Your task to perform on an android device: Open display settings Image 0: 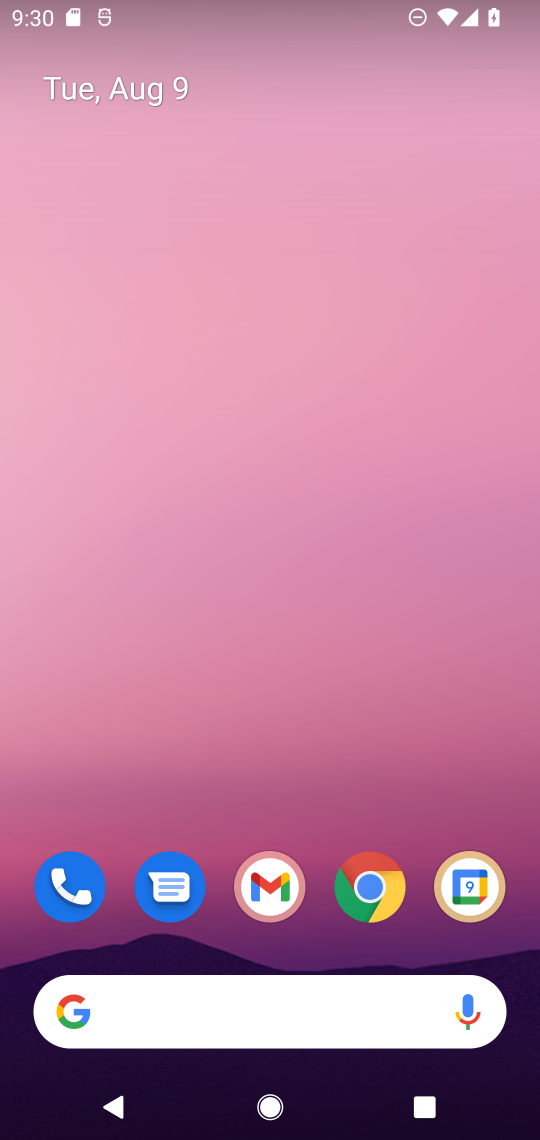
Step 0: drag from (347, 655) to (347, 70)
Your task to perform on an android device: Open display settings Image 1: 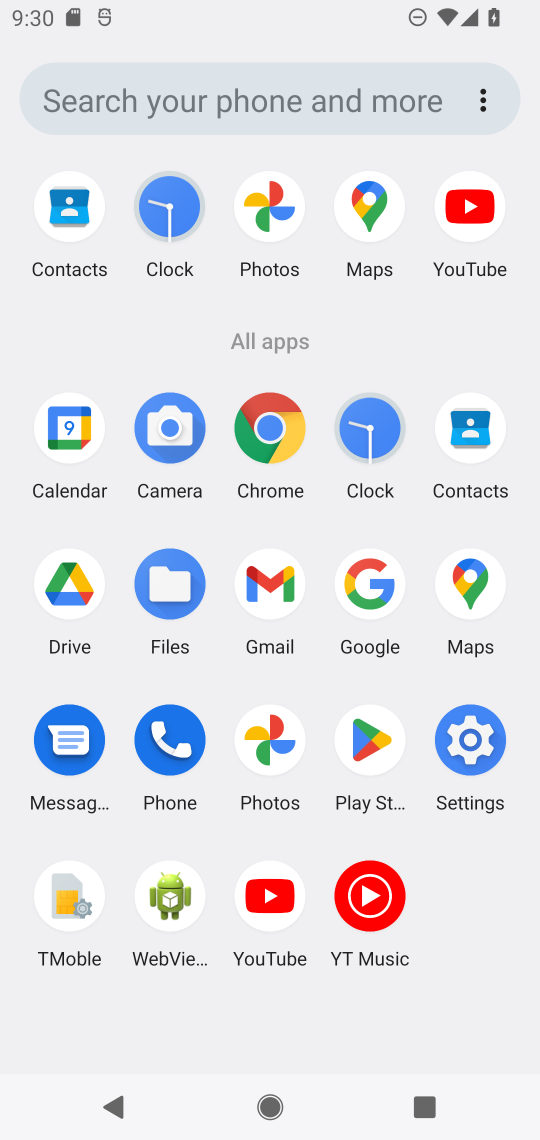
Step 1: click (452, 724)
Your task to perform on an android device: Open display settings Image 2: 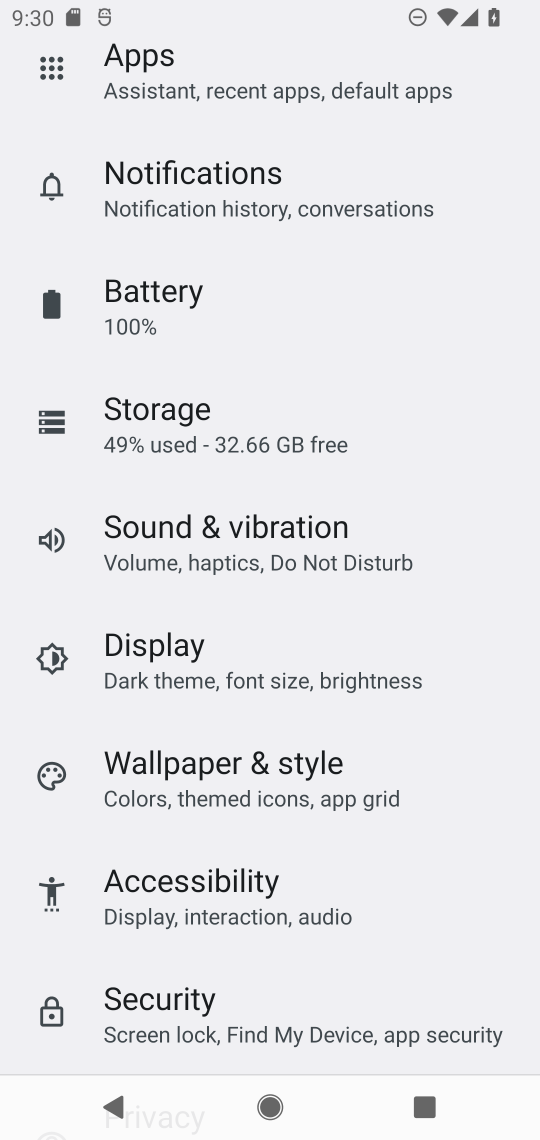
Step 2: drag from (267, 498) to (273, 883)
Your task to perform on an android device: Open display settings Image 3: 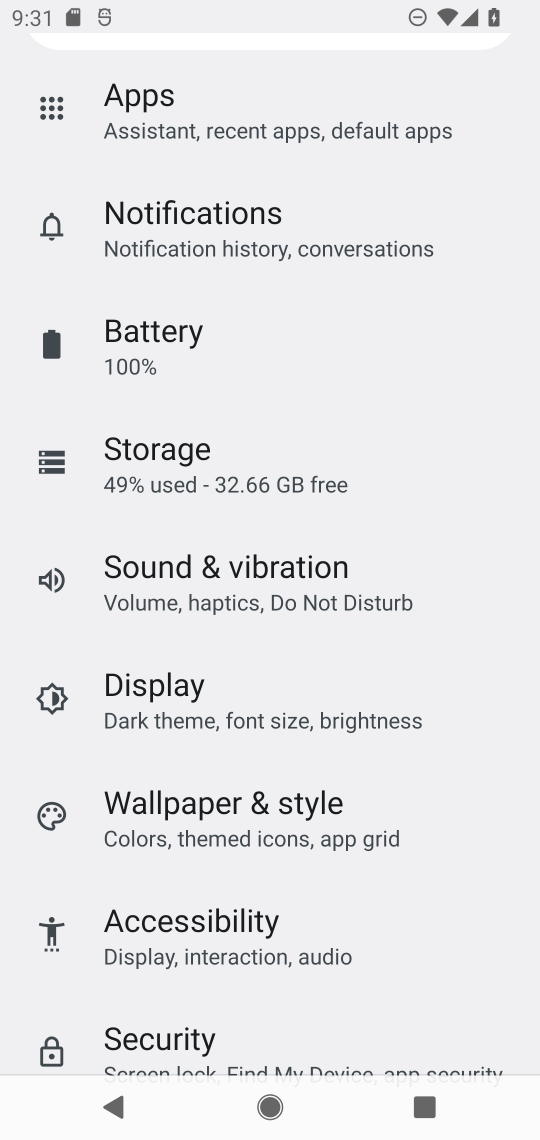
Step 3: drag from (212, 415) to (267, 938)
Your task to perform on an android device: Open display settings Image 4: 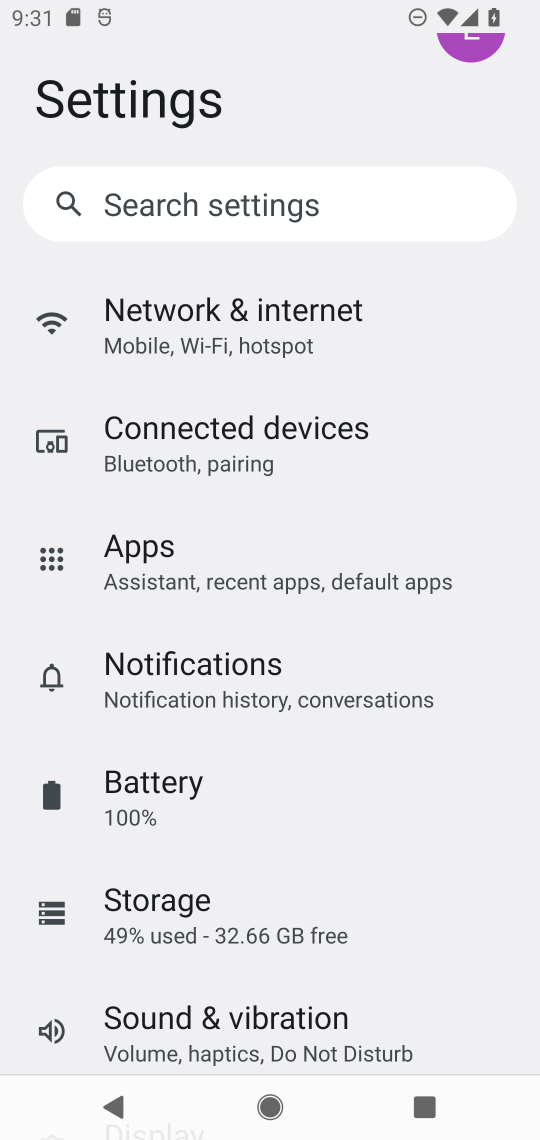
Step 4: drag from (243, 949) to (238, 361)
Your task to perform on an android device: Open display settings Image 5: 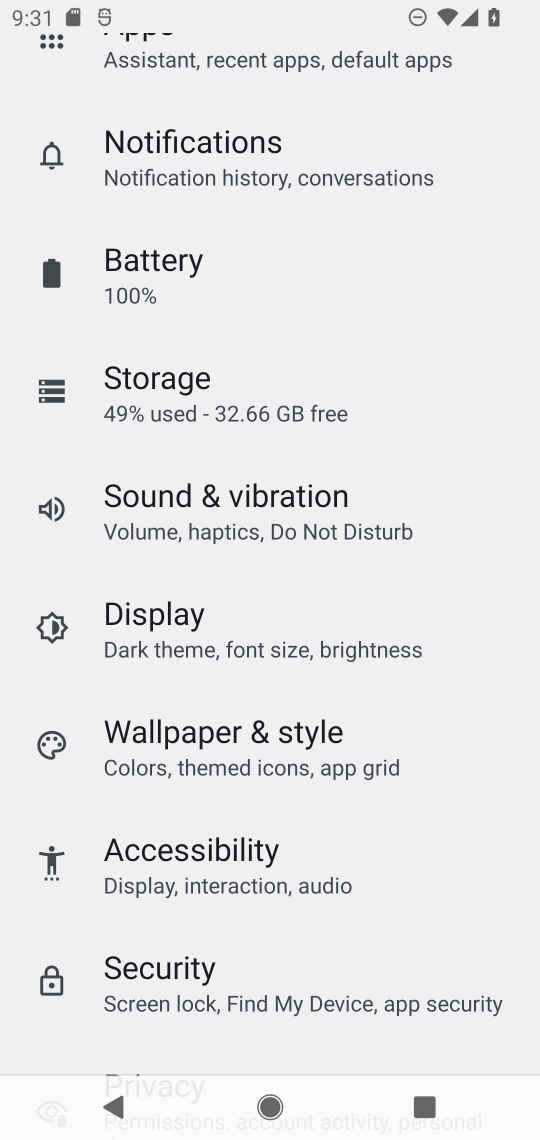
Step 5: click (172, 628)
Your task to perform on an android device: Open display settings Image 6: 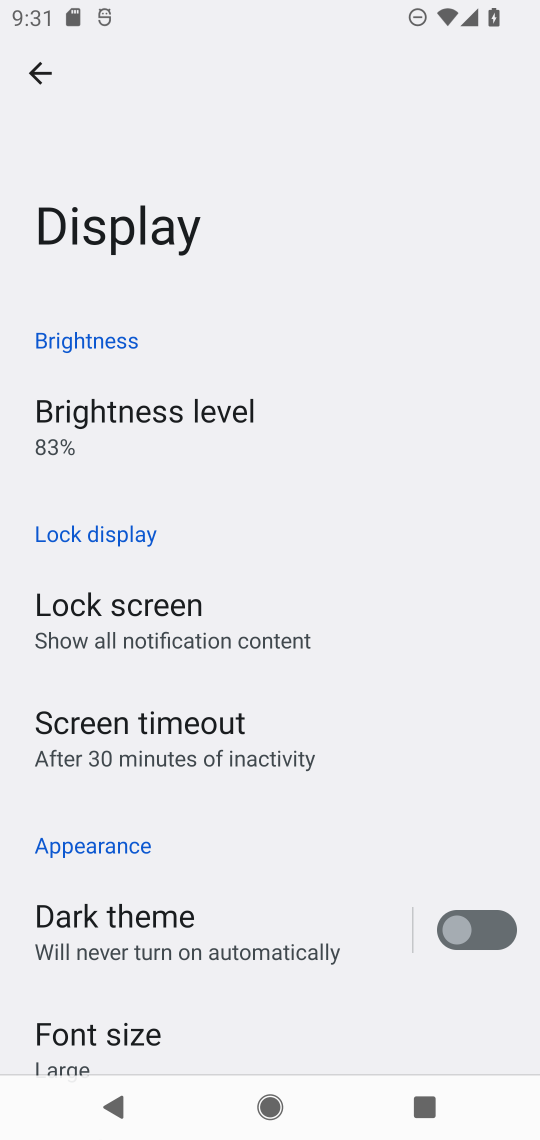
Step 6: task complete